Your task to perform on an android device: Go to ESPN.com Image 0: 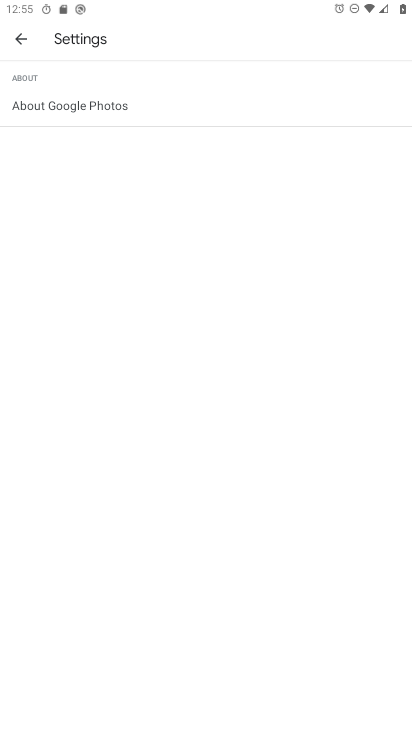
Step 0: press home button
Your task to perform on an android device: Go to ESPN.com Image 1: 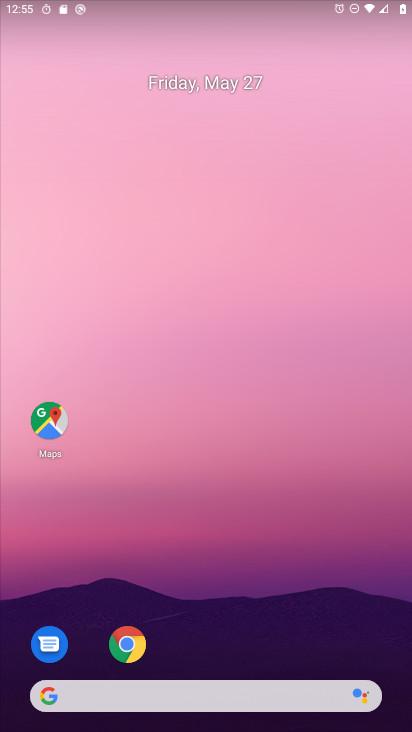
Step 1: click (143, 641)
Your task to perform on an android device: Go to ESPN.com Image 2: 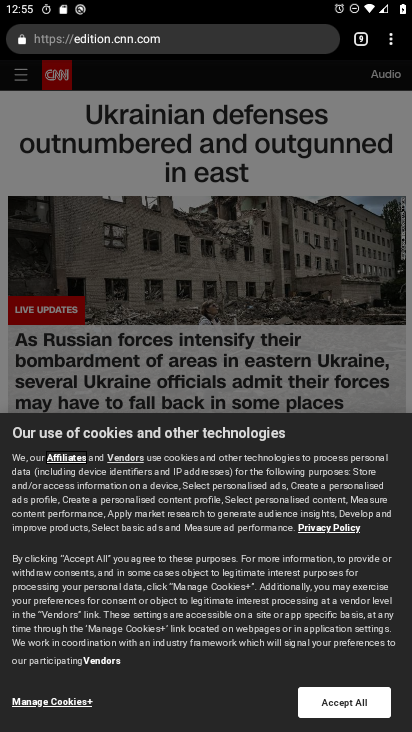
Step 2: click (366, 36)
Your task to perform on an android device: Go to ESPN.com Image 3: 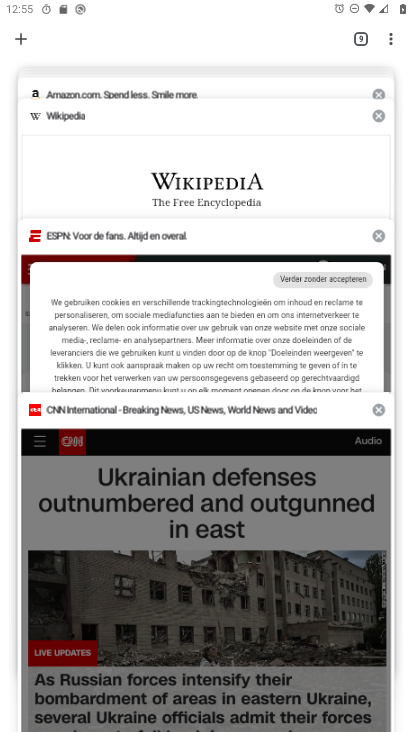
Step 3: click (151, 230)
Your task to perform on an android device: Go to ESPN.com Image 4: 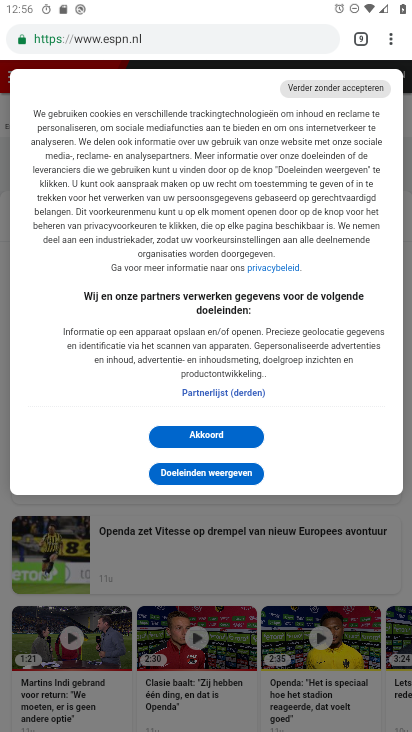
Step 4: task complete